Your task to perform on an android device: Search for jbl charge 4 on amazon.com, select the first entry, add it to the cart, then select checkout. Image 0: 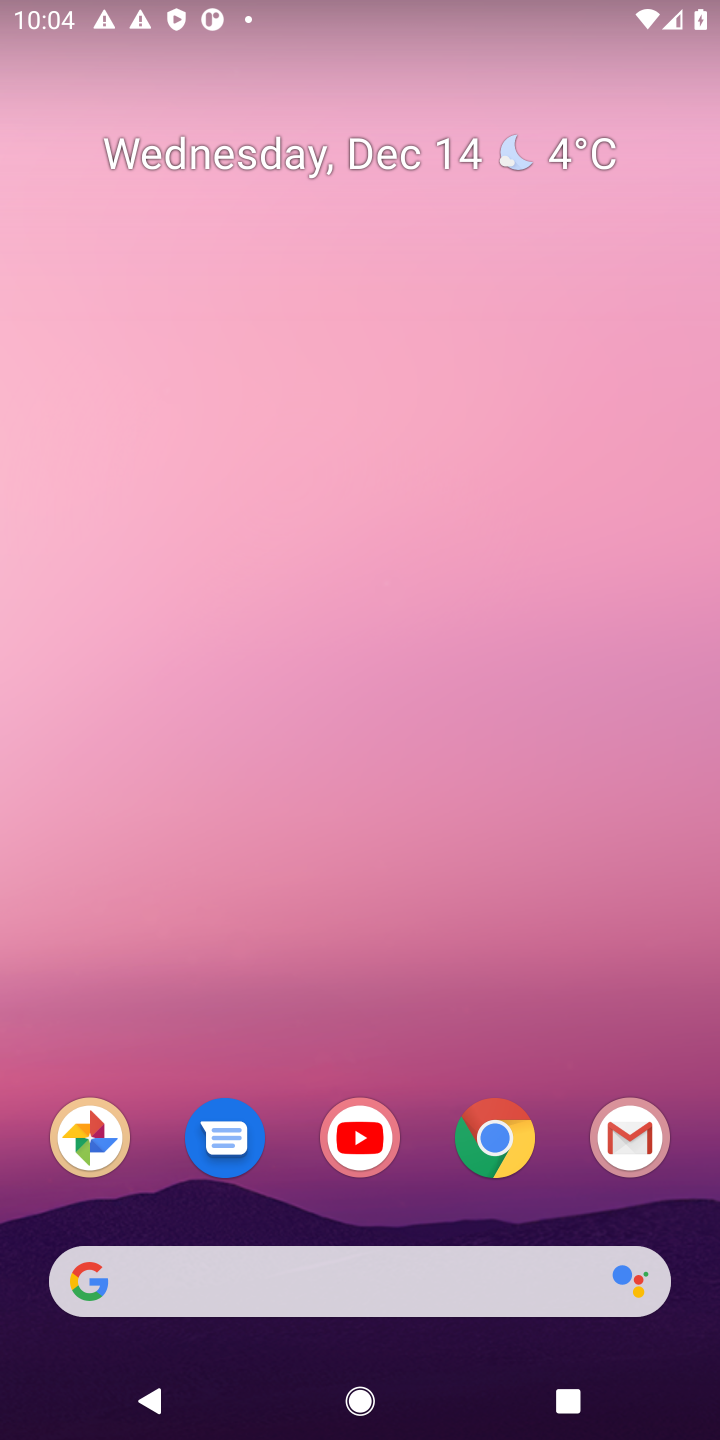
Step 0: click (486, 1132)
Your task to perform on an android device: Search for jbl charge 4 on amazon.com, select the first entry, add it to the cart, then select checkout. Image 1: 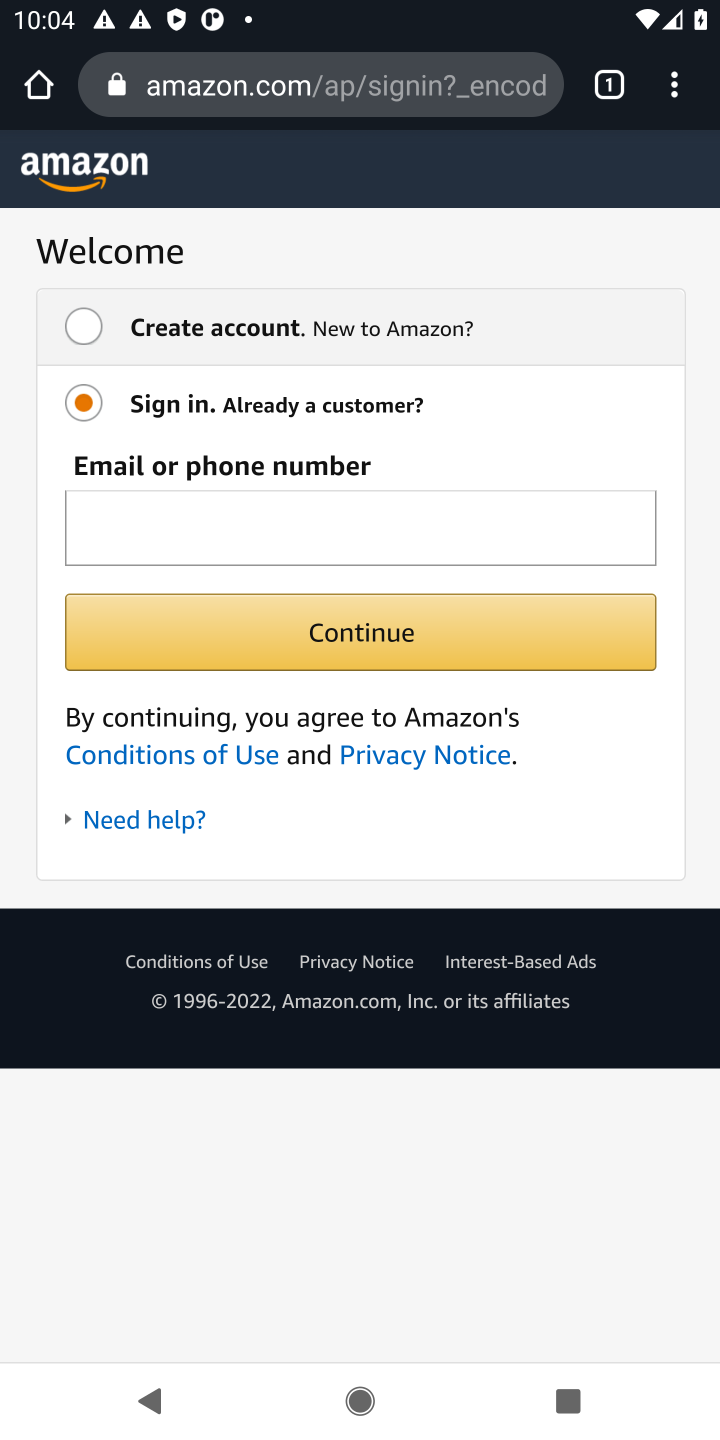
Step 1: press back button
Your task to perform on an android device: Search for jbl charge 4 on amazon.com, select the first entry, add it to the cart, then select checkout. Image 2: 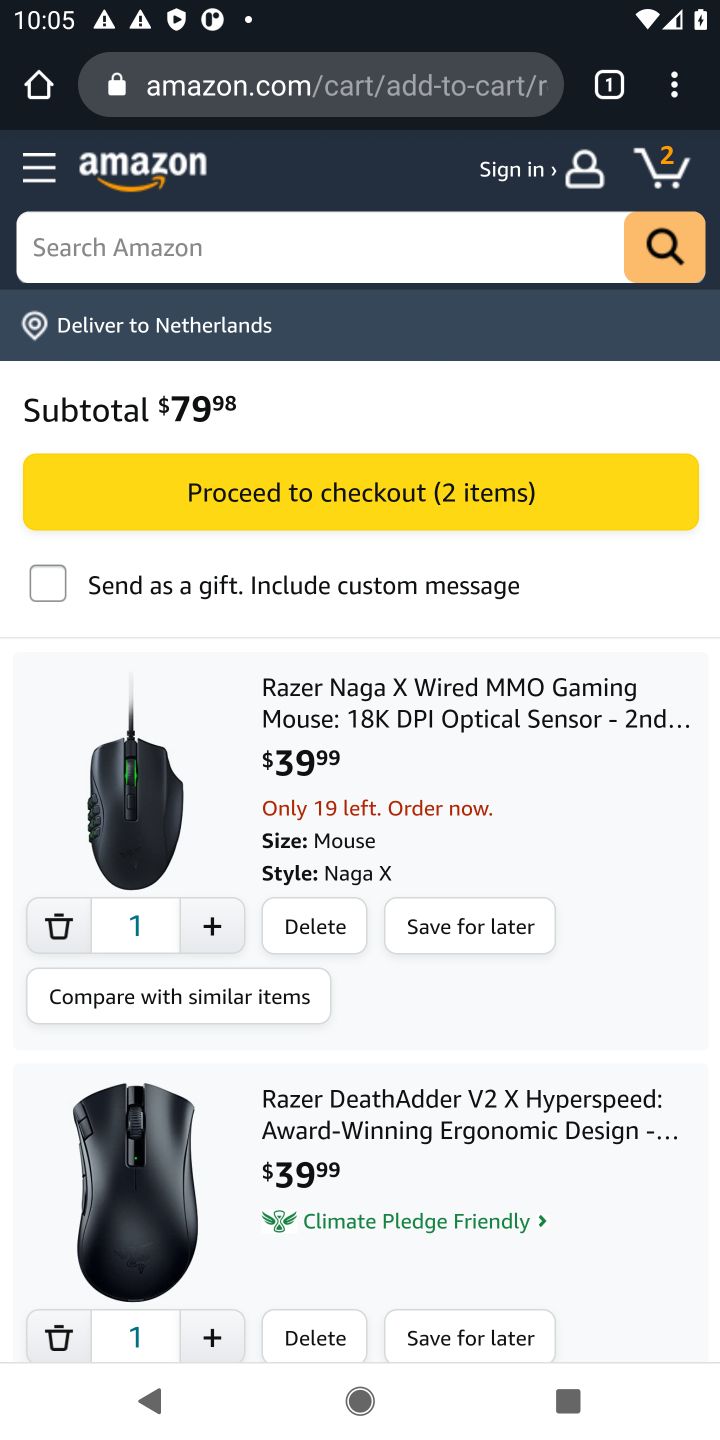
Step 2: click (146, 261)
Your task to perform on an android device: Search for jbl charge 4 on amazon.com, select the first entry, add it to the cart, then select checkout. Image 3: 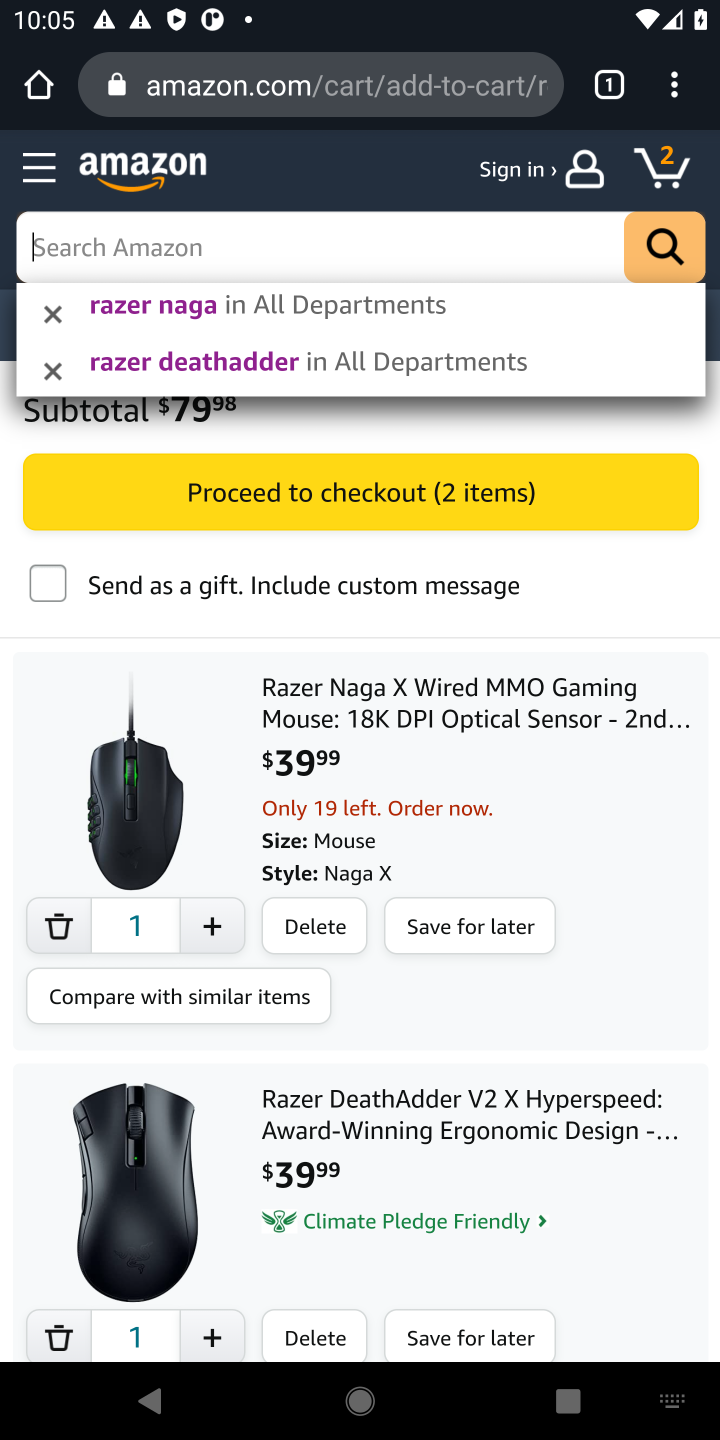
Step 3: type " jbl charge 4"
Your task to perform on an android device: Search for jbl charge 4 on amazon.com, select the first entry, add it to the cart, then select checkout. Image 4: 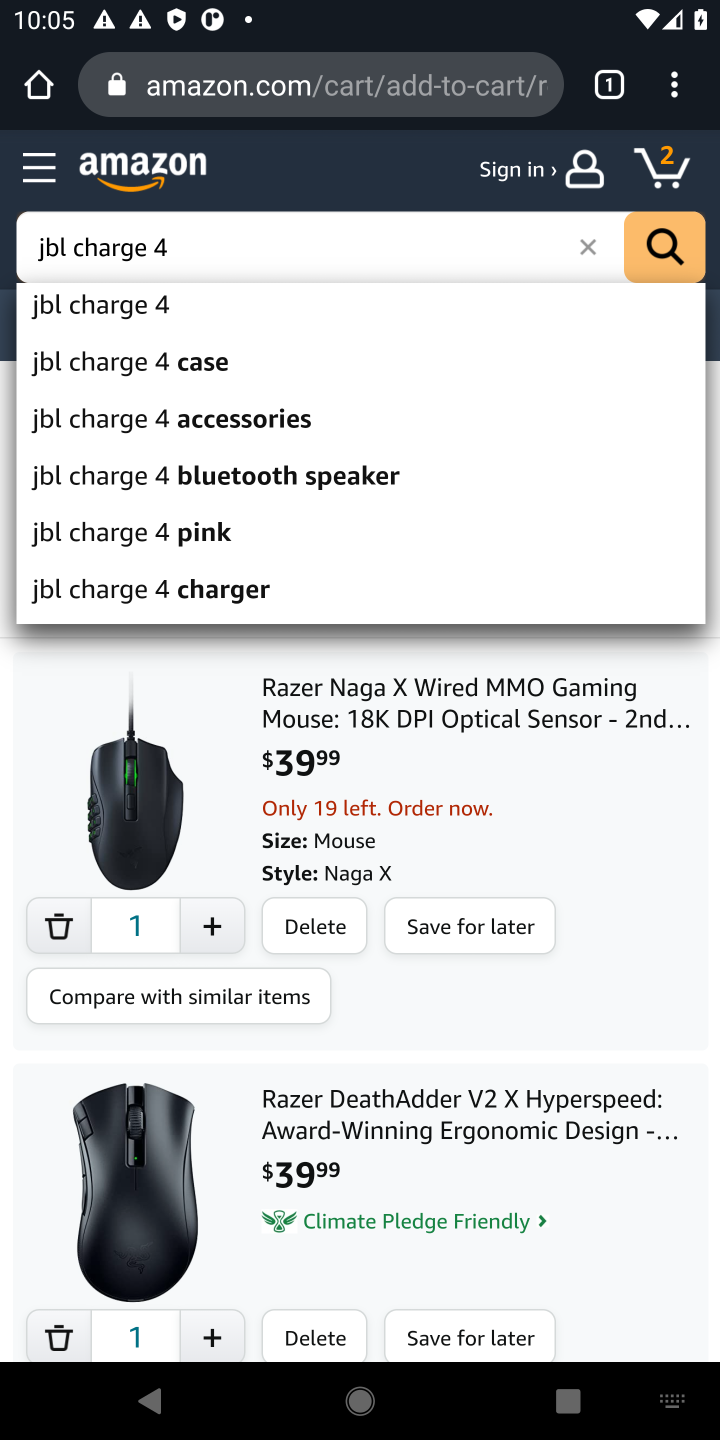
Step 4: click (89, 318)
Your task to perform on an android device: Search for jbl charge 4 on amazon.com, select the first entry, add it to the cart, then select checkout. Image 5: 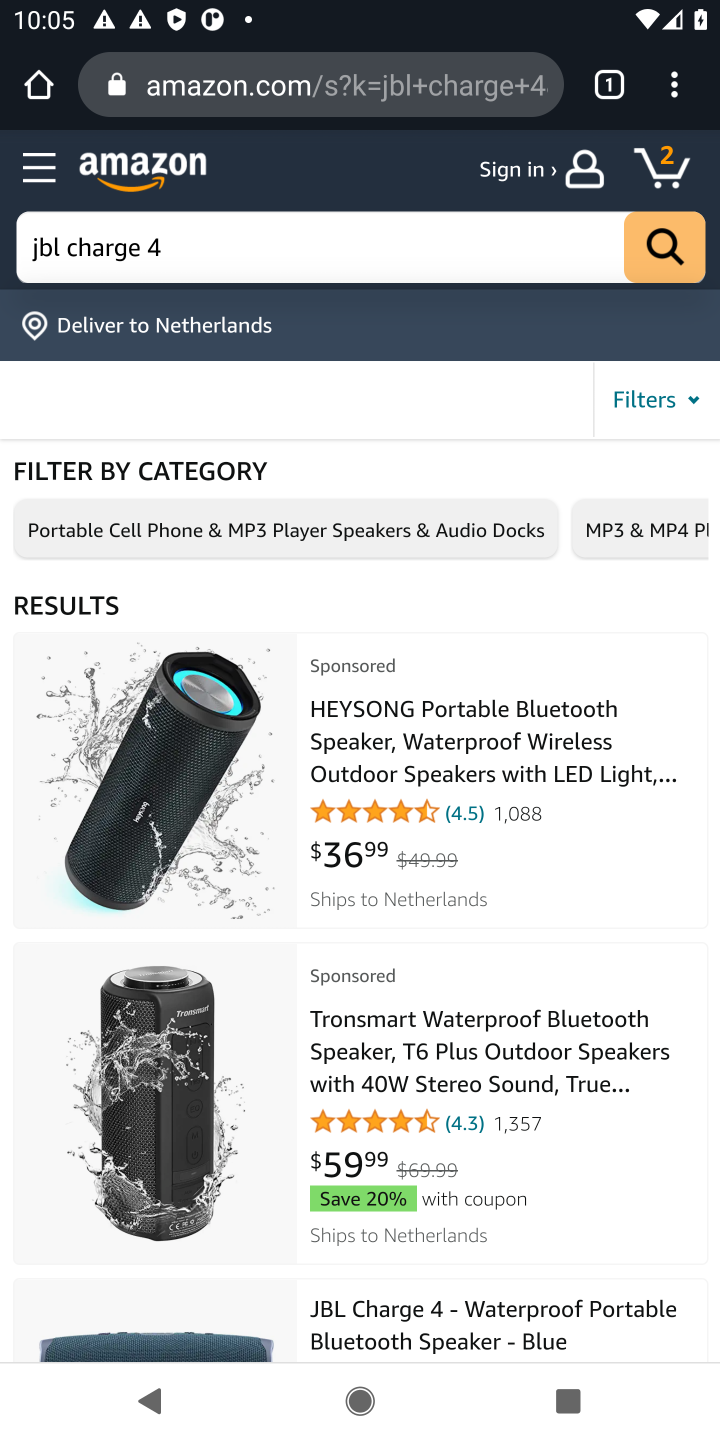
Step 5: task complete